Your task to perform on an android device: change the upload size in google photos Image 0: 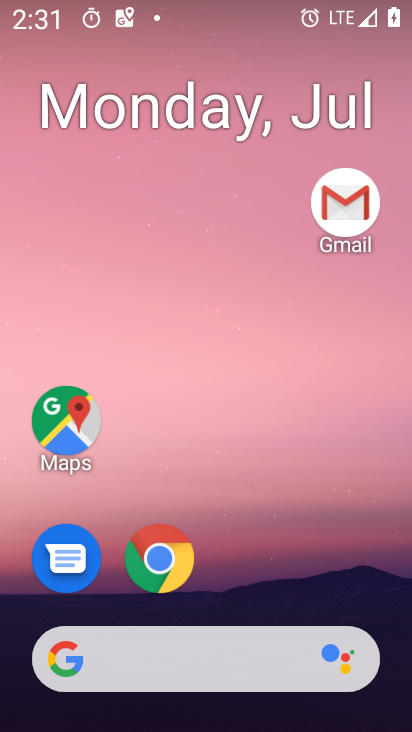
Step 0: drag from (370, 590) to (394, 180)
Your task to perform on an android device: change the upload size in google photos Image 1: 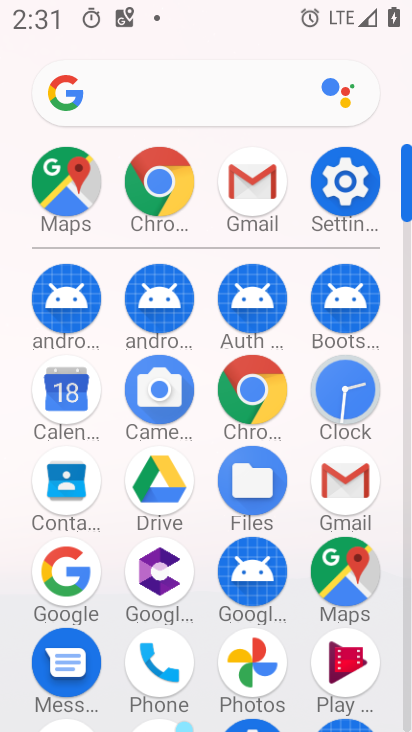
Step 1: click (267, 654)
Your task to perform on an android device: change the upload size in google photos Image 2: 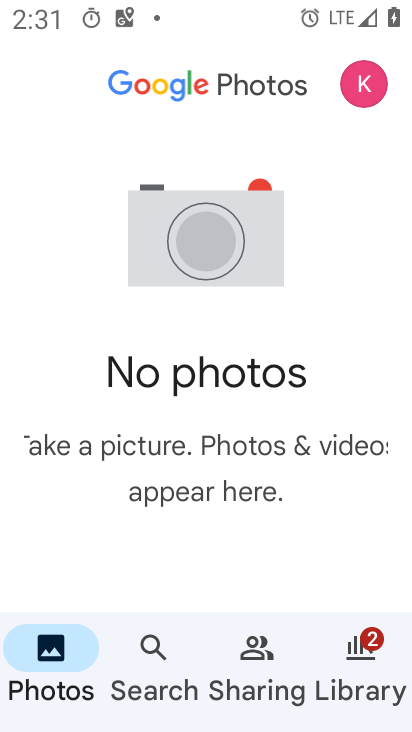
Step 2: click (365, 90)
Your task to perform on an android device: change the upload size in google photos Image 3: 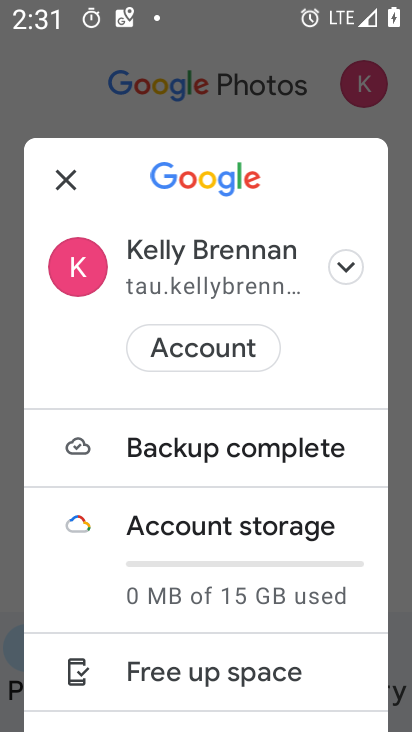
Step 3: drag from (333, 651) to (326, 510)
Your task to perform on an android device: change the upload size in google photos Image 4: 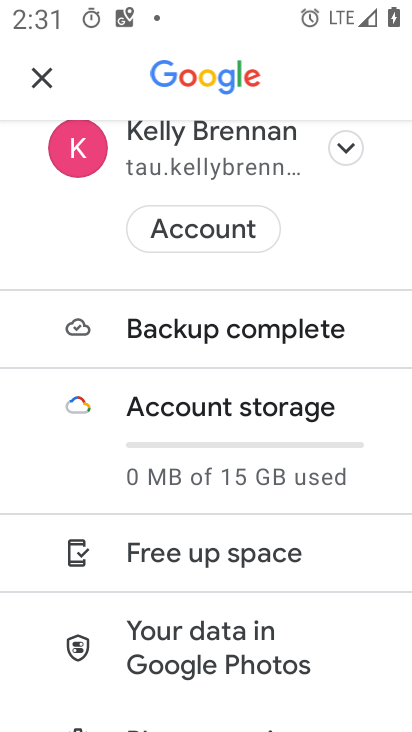
Step 4: drag from (321, 618) to (322, 464)
Your task to perform on an android device: change the upload size in google photos Image 5: 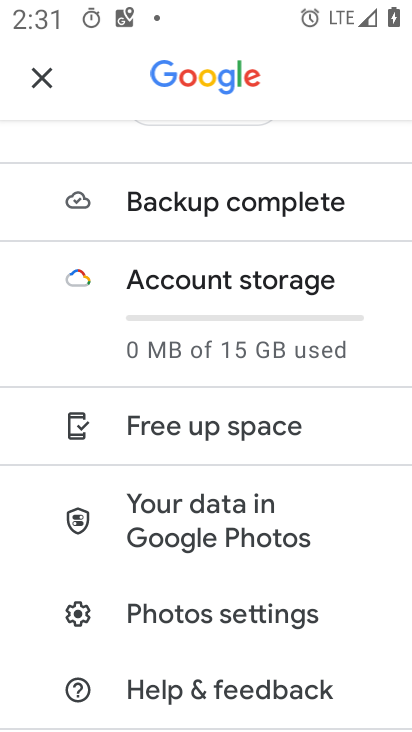
Step 5: drag from (329, 568) to (331, 431)
Your task to perform on an android device: change the upload size in google photos Image 6: 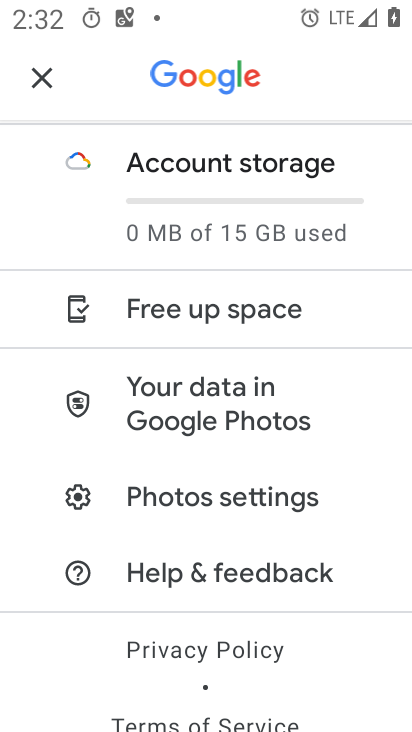
Step 6: drag from (348, 606) to (346, 476)
Your task to perform on an android device: change the upload size in google photos Image 7: 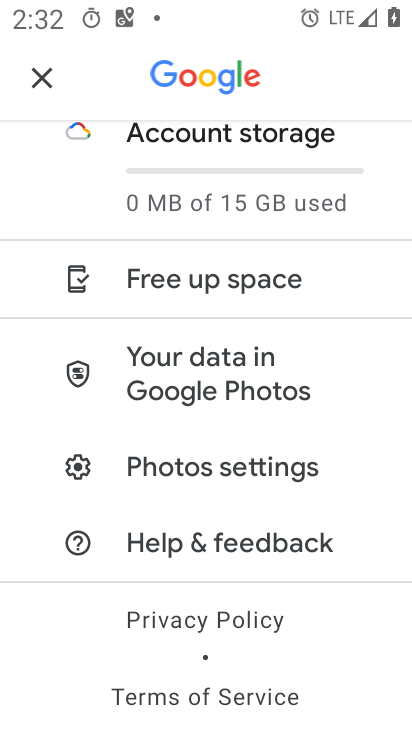
Step 7: click (307, 468)
Your task to perform on an android device: change the upload size in google photos Image 8: 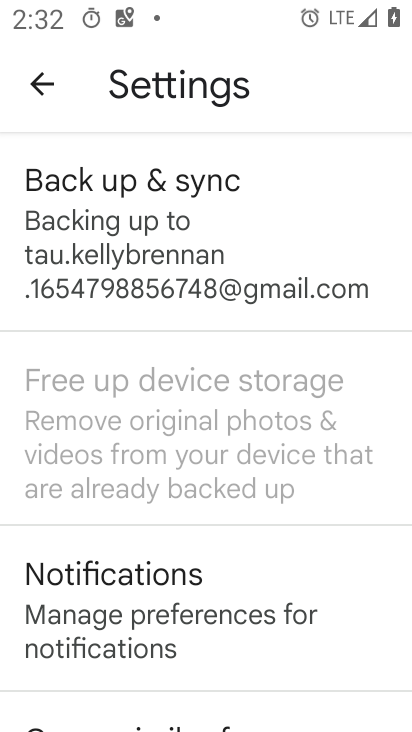
Step 8: click (286, 286)
Your task to perform on an android device: change the upload size in google photos Image 9: 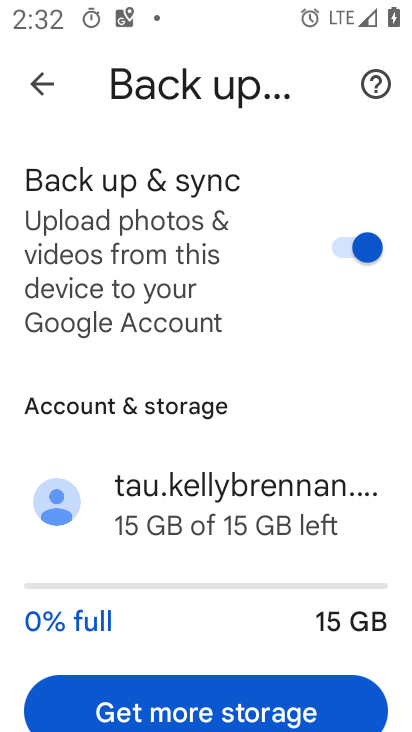
Step 9: drag from (303, 547) to (303, 414)
Your task to perform on an android device: change the upload size in google photos Image 10: 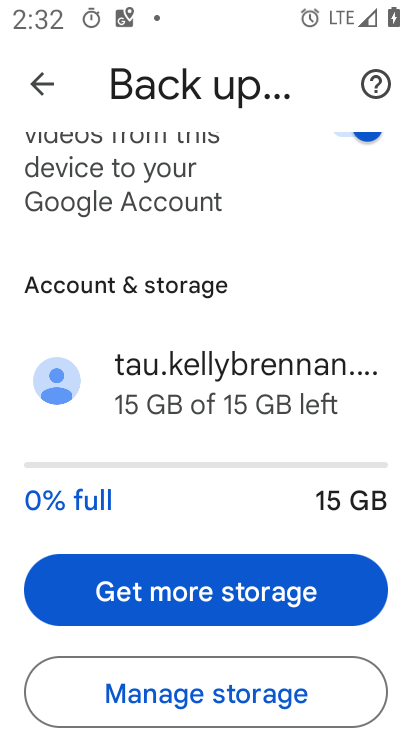
Step 10: drag from (280, 565) to (279, 393)
Your task to perform on an android device: change the upload size in google photos Image 11: 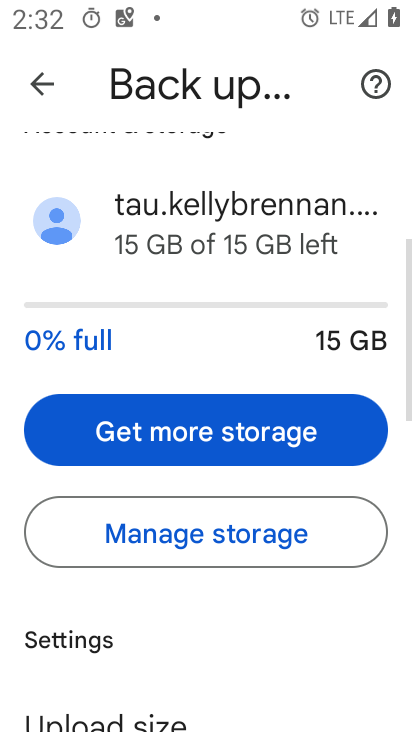
Step 11: drag from (273, 621) to (283, 435)
Your task to perform on an android device: change the upload size in google photos Image 12: 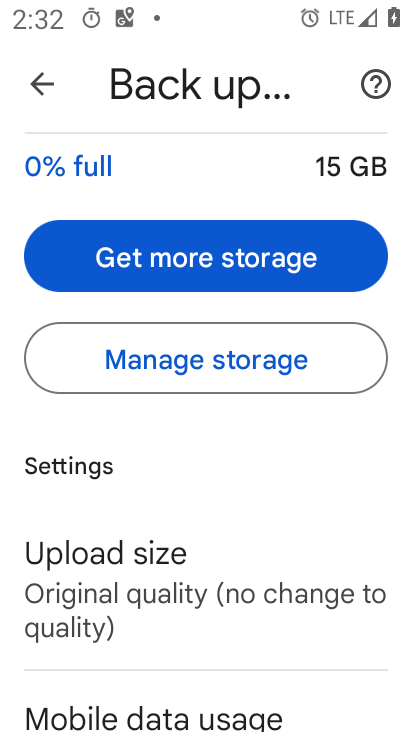
Step 12: drag from (285, 548) to (284, 428)
Your task to perform on an android device: change the upload size in google photos Image 13: 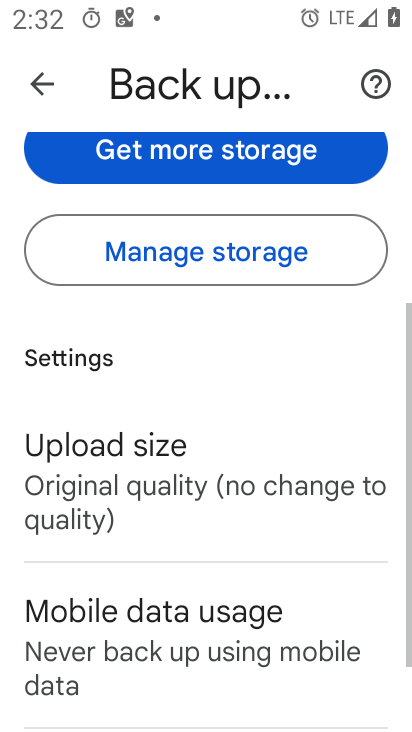
Step 13: drag from (292, 575) to (297, 415)
Your task to perform on an android device: change the upload size in google photos Image 14: 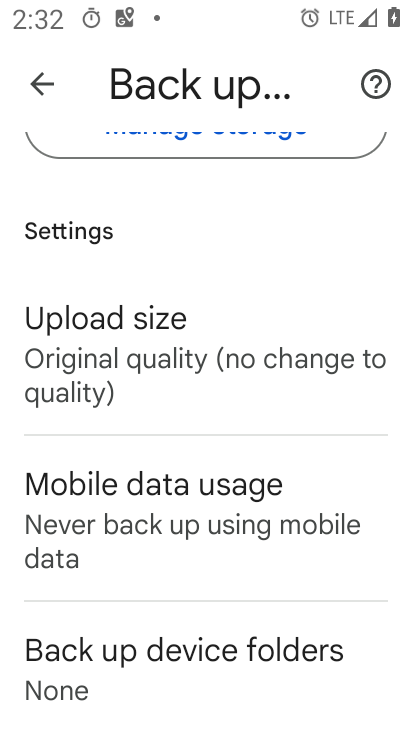
Step 14: click (202, 360)
Your task to perform on an android device: change the upload size in google photos Image 15: 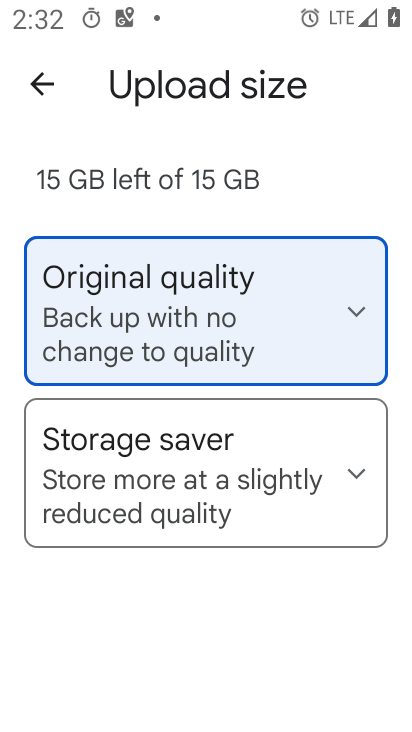
Step 15: click (223, 486)
Your task to perform on an android device: change the upload size in google photos Image 16: 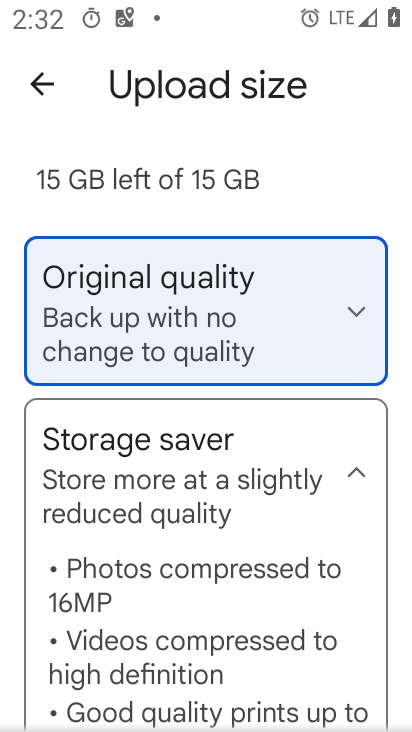
Step 16: drag from (235, 530) to (262, 291)
Your task to perform on an android device: change the upload size in google photos Image 17: 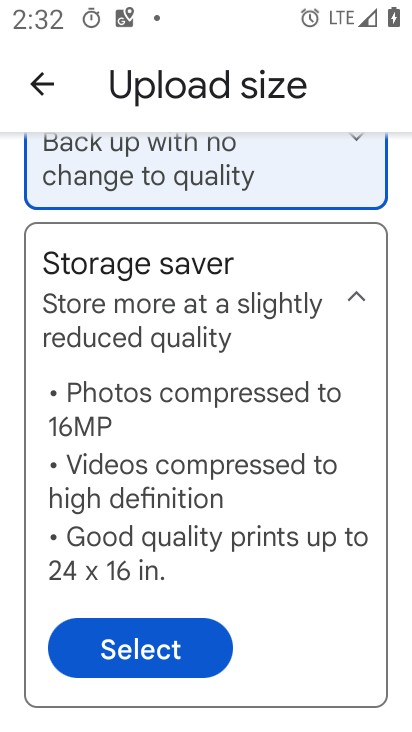
Step 17: click (164, 641)
Your task to perform on an android device: change the upload size in google photos Image 18: 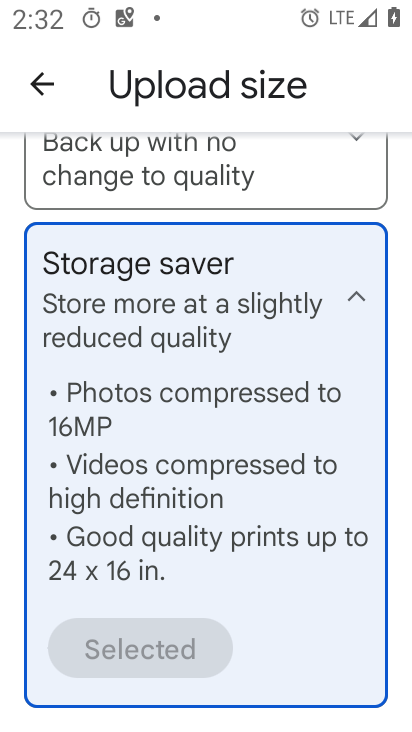
Step 18: task complete